Your task to perform on an android device: Open Google Maps Image 0: 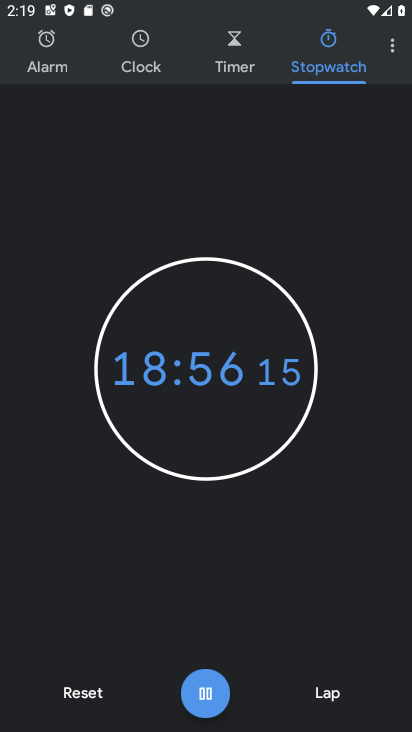
Step 0: press home button
Your task to perform on an android device: Open Google Maps Image 1: 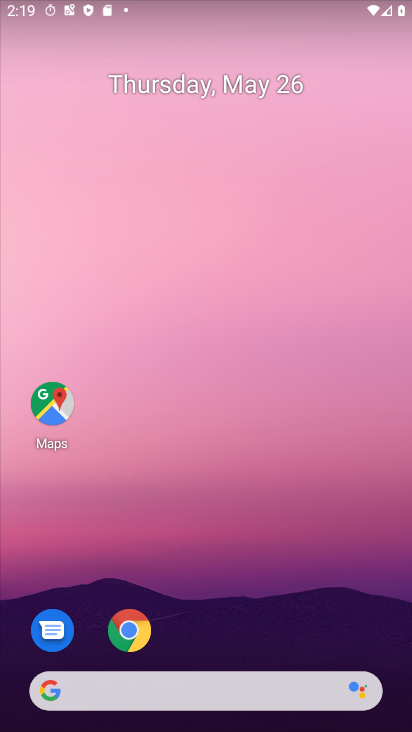
Step 1: click (72, 417)
Your task to perform on an android device: Open Google Maps Image 2: 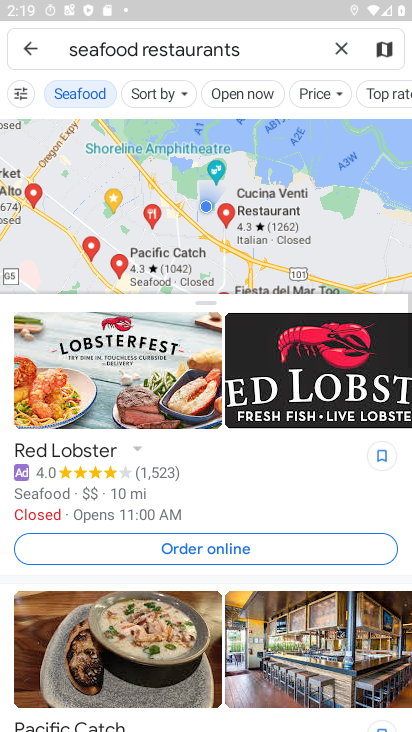
Step 2: task complete